Your task to perform on an android device: delete a single message in the gmail app Image 0: 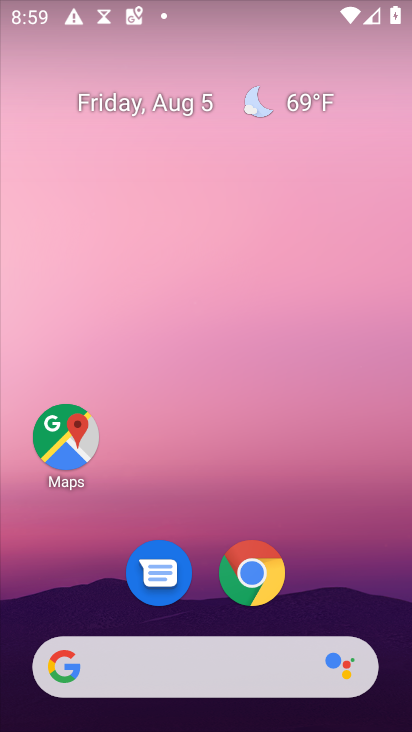
Step 0: drag from (232, 678) to (235, 136)
Your task to perform on an android device: delete a single message in the gmail app Image 1: 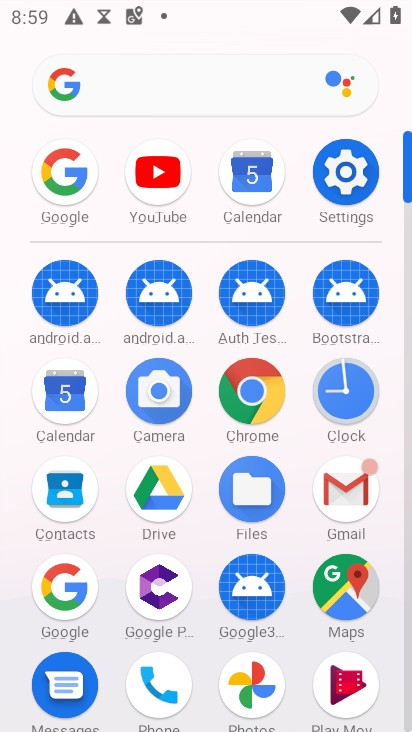
Step 1: click (346, 489)
Your task to perform on an android device: delete a single message in the gmail app Image 2: 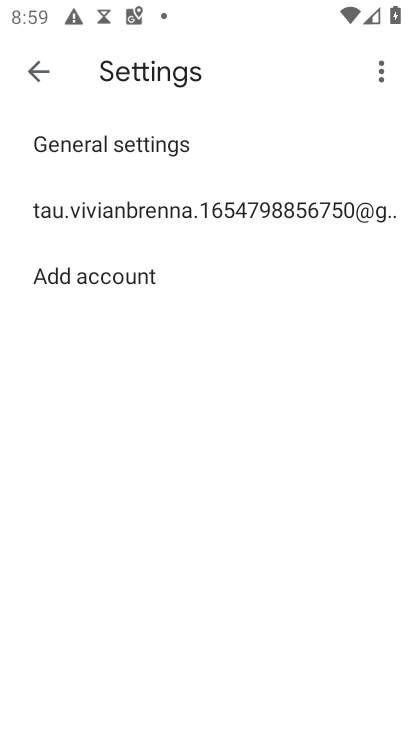
Step 2: press back button
Your task to perform on an android device: delete a single message in the gmail app Image 3: 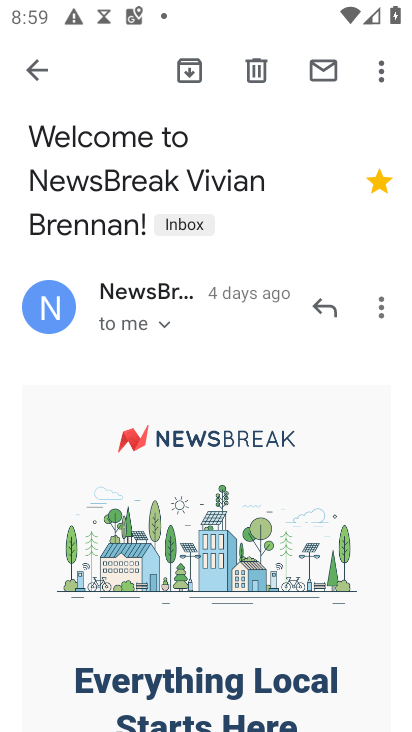
Step 3: click (255, 65)
Your task to perform on an android device: delete a single message in the gmail app Image 4: 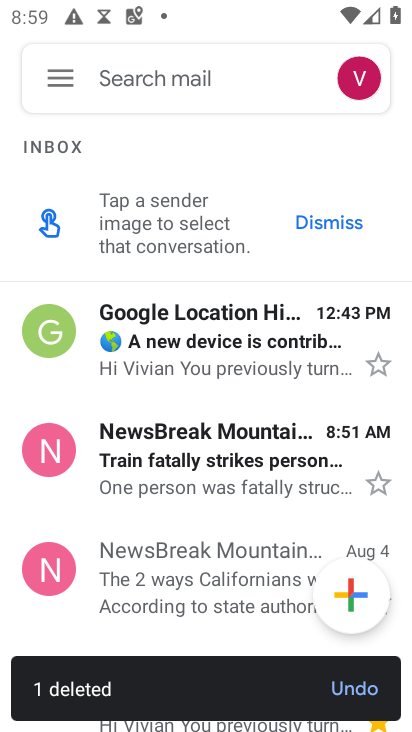
Step 4: task complete